Your task to perform on an android device: Turn off the flashlight Image 0: 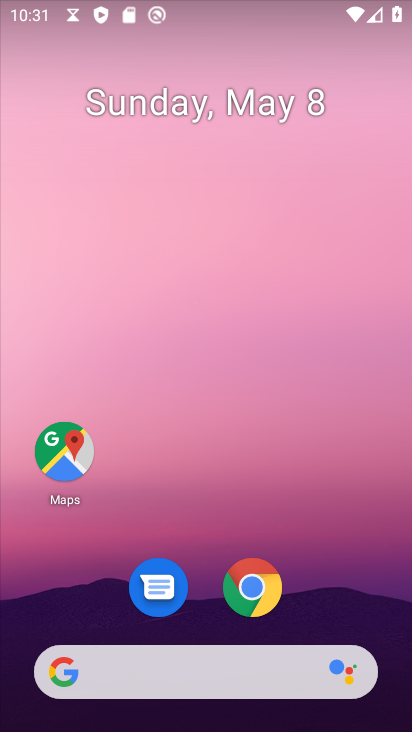
Step 0: drag from (332, 549) to (138, 133)
Your task to perform on an android device: Turn off the flashlight Image 1: 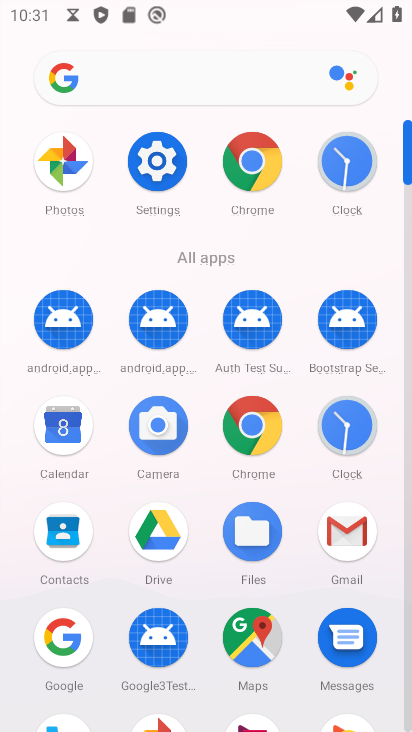
Step 1: click (167, 159)
Your task to perform on an android device: Turn off the flashlight Image 2: 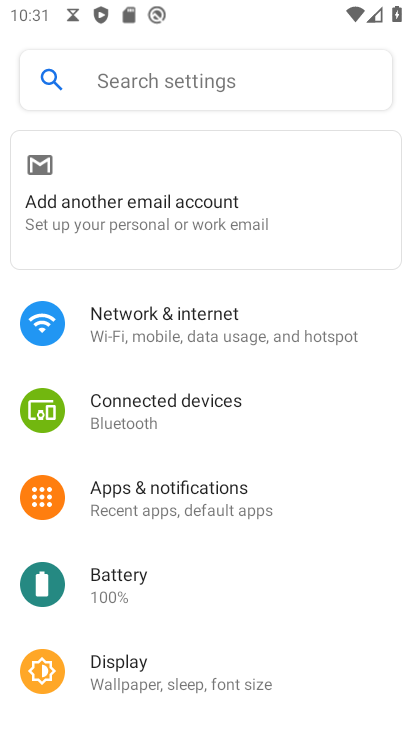
Step 2: click (165, 82)
Your task to perform on an android device: Turn off the flashlight Image 3: 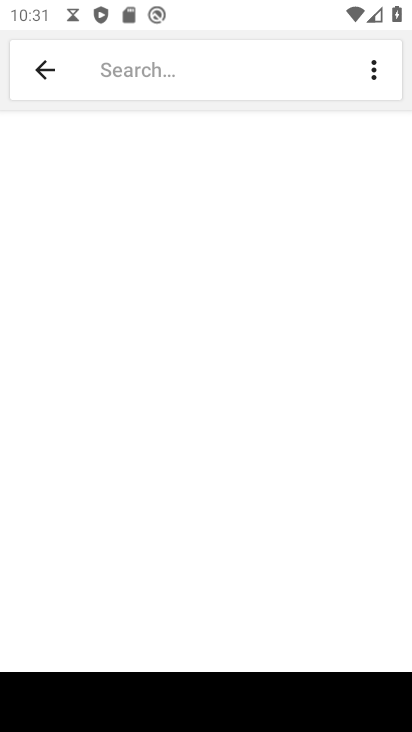
Step 3: type "flashlight"
Your task to perform on an android device: Turn off the flashlight Image 4: 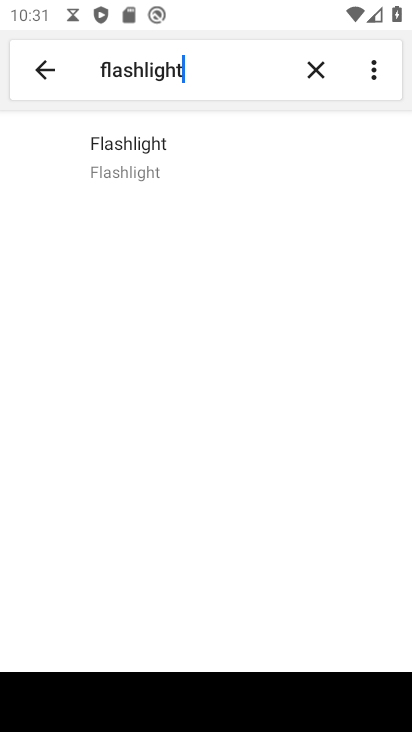
Step 4: click (166, 166)
Your task to perform on an android device: Turn off the flashlight Image 5: 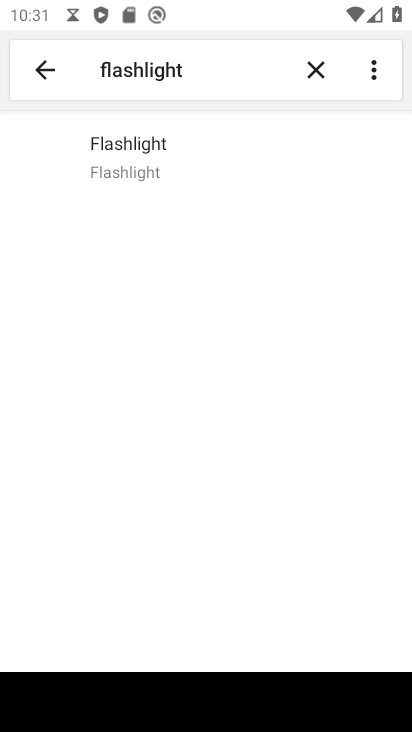
Step 5: click (98, 158)
Your task to perform on an android device: Turn off the flashlight Image 6: 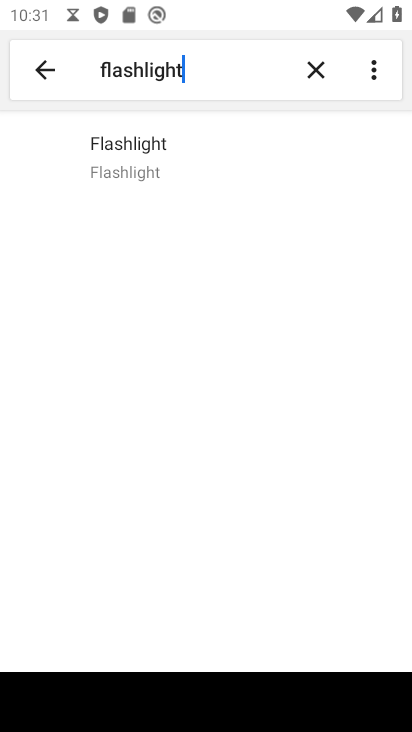
Step 6: task complete